Your task to perform on an android device: turn pop-ups on in chrome Image 0: 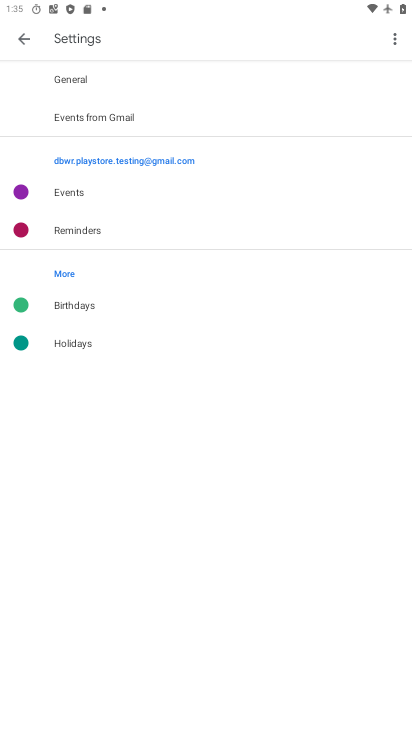
Step 0: press home button
Your task to perform on an android device: turn pop-ups on in chrome Image 1: 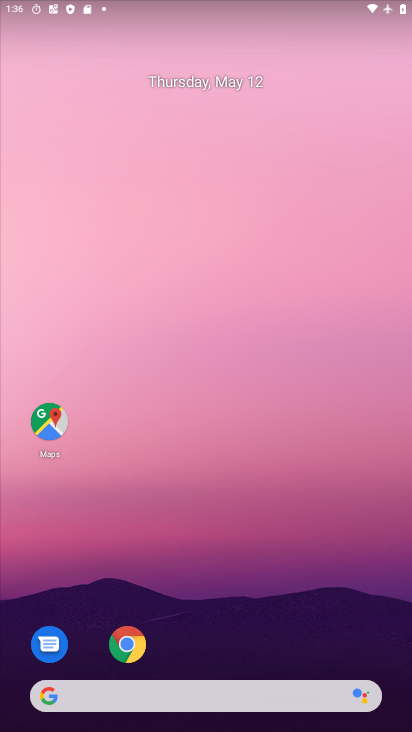
Step 1: click (127, 635)
Your task to perform on an android device: turn pop-ups on in chrome Image 2: 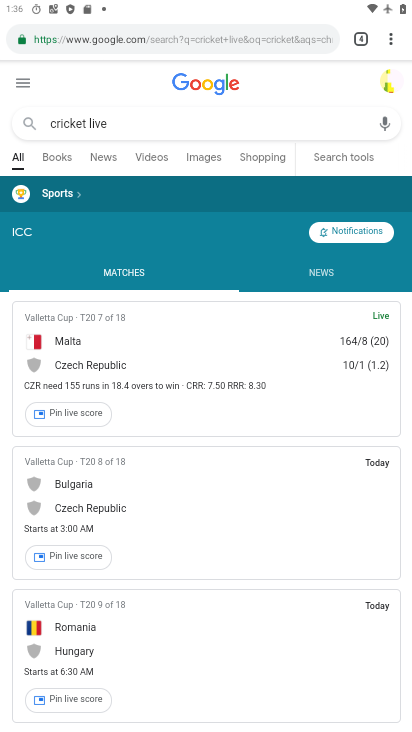
Step 2: click (390, 41)
Your task to perform on an android device: turn pop-ups on in chrome Image 3: 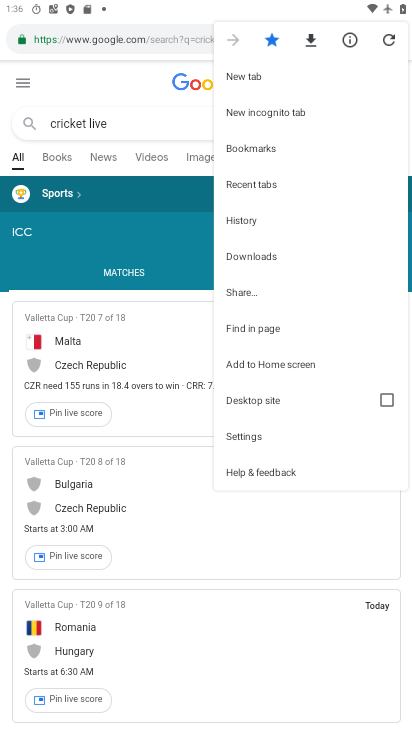
Step 3: click (269, 439)
Your task to perform on an android device: turn pop-ups on in chrome Image 4: 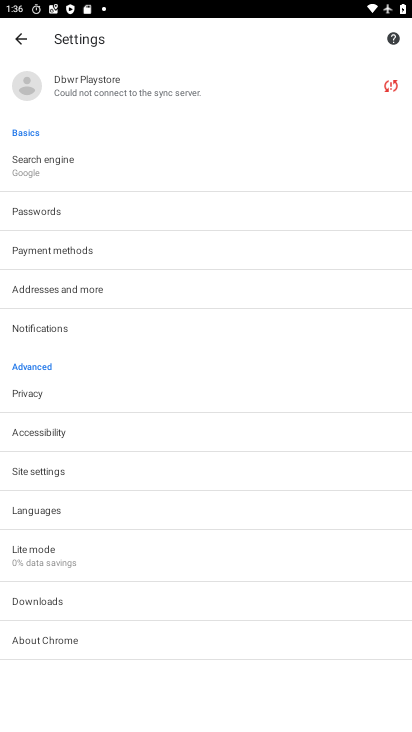
Step 4: click (101, 470)
Your task to perform on an android device: turn pop-ups on in chrome Image 5: 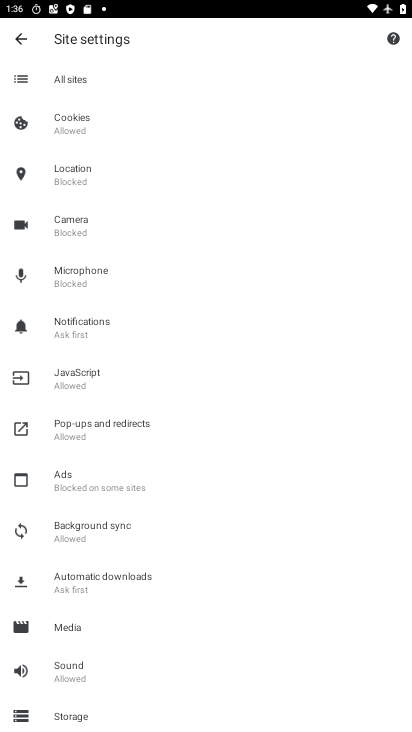
Step 5: click (100, 425)
Your task to perform on an android device: turn pop-ups on in chrome Image 6: 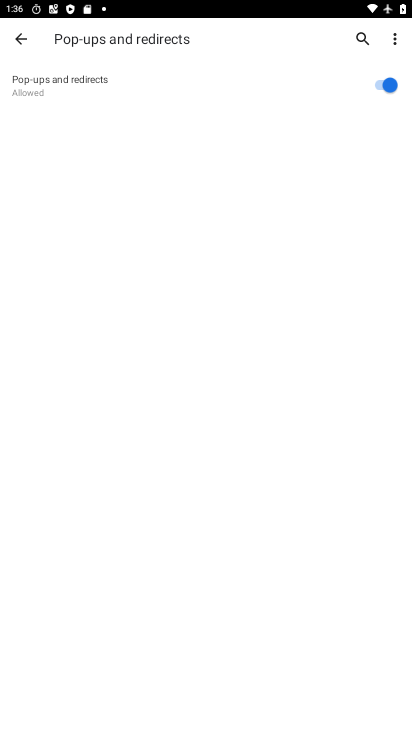
Step 6: task complete